Your task to perform on an android device: turn off sleep mode Image 0: 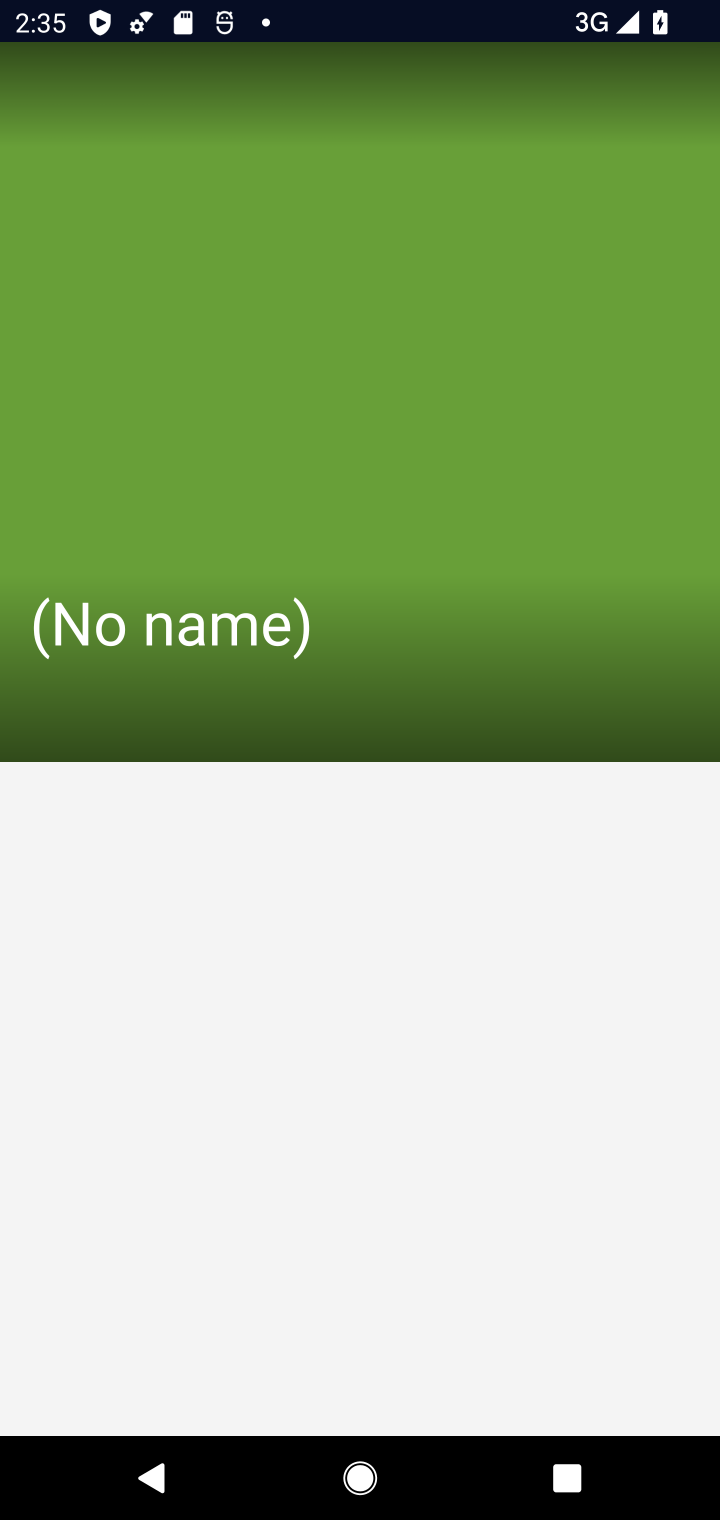
Step 0: press home button
Your task to perform on an android device: turn off sleep mode Image 1: 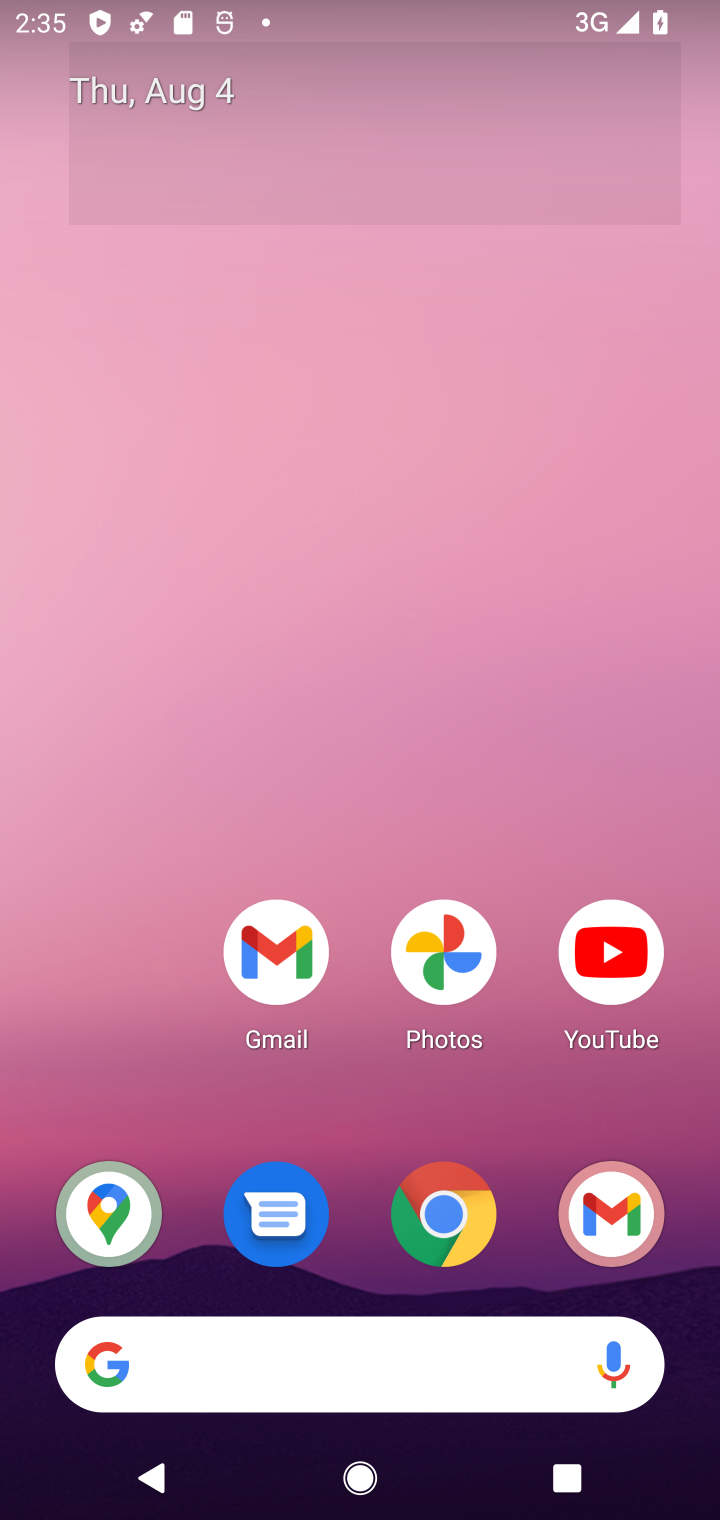
Step 1: drag from (108, 652) to (89, 3)
Your task to perform on an android device: turn off sleep mode Image 2: 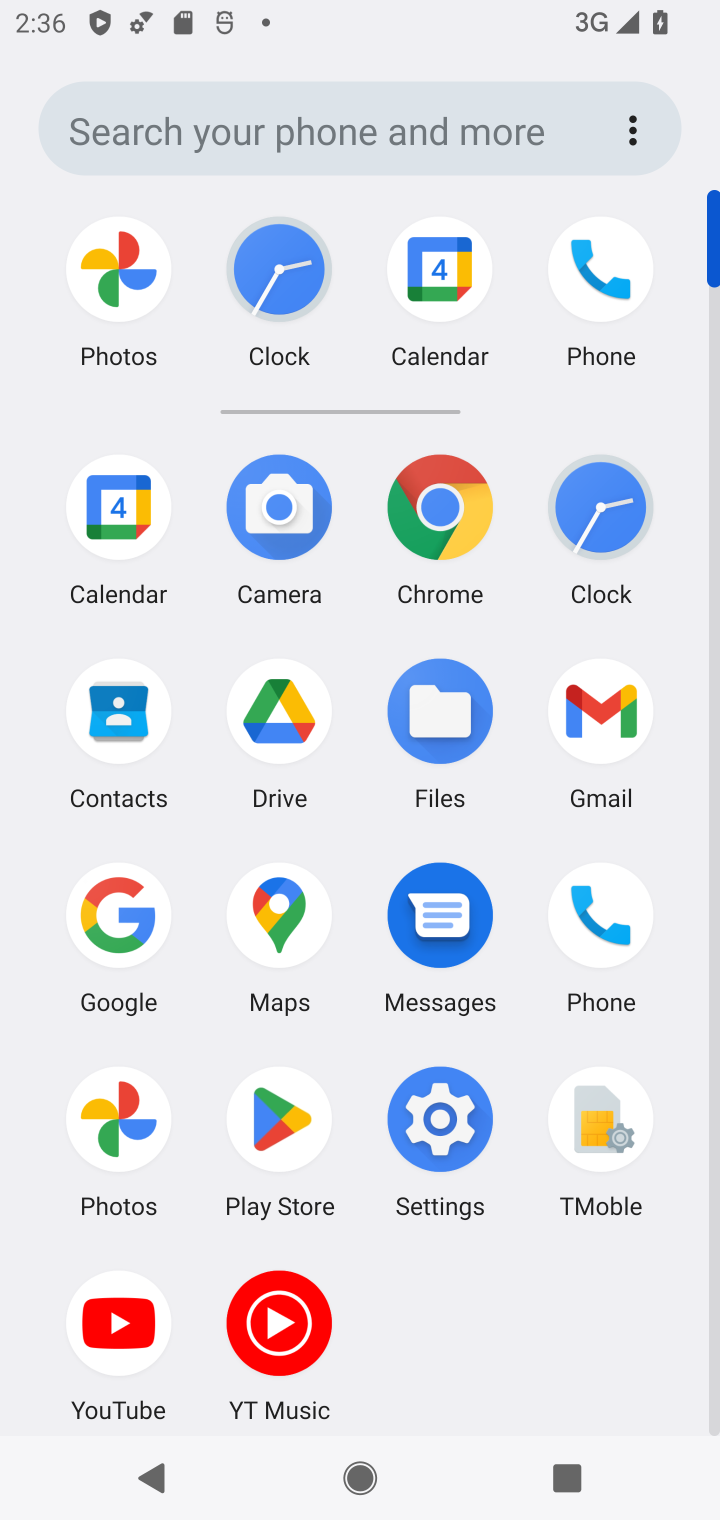
Step 2: click (420, 1123)
Your task to perform on an android device: turn off sleep mode Image 3: 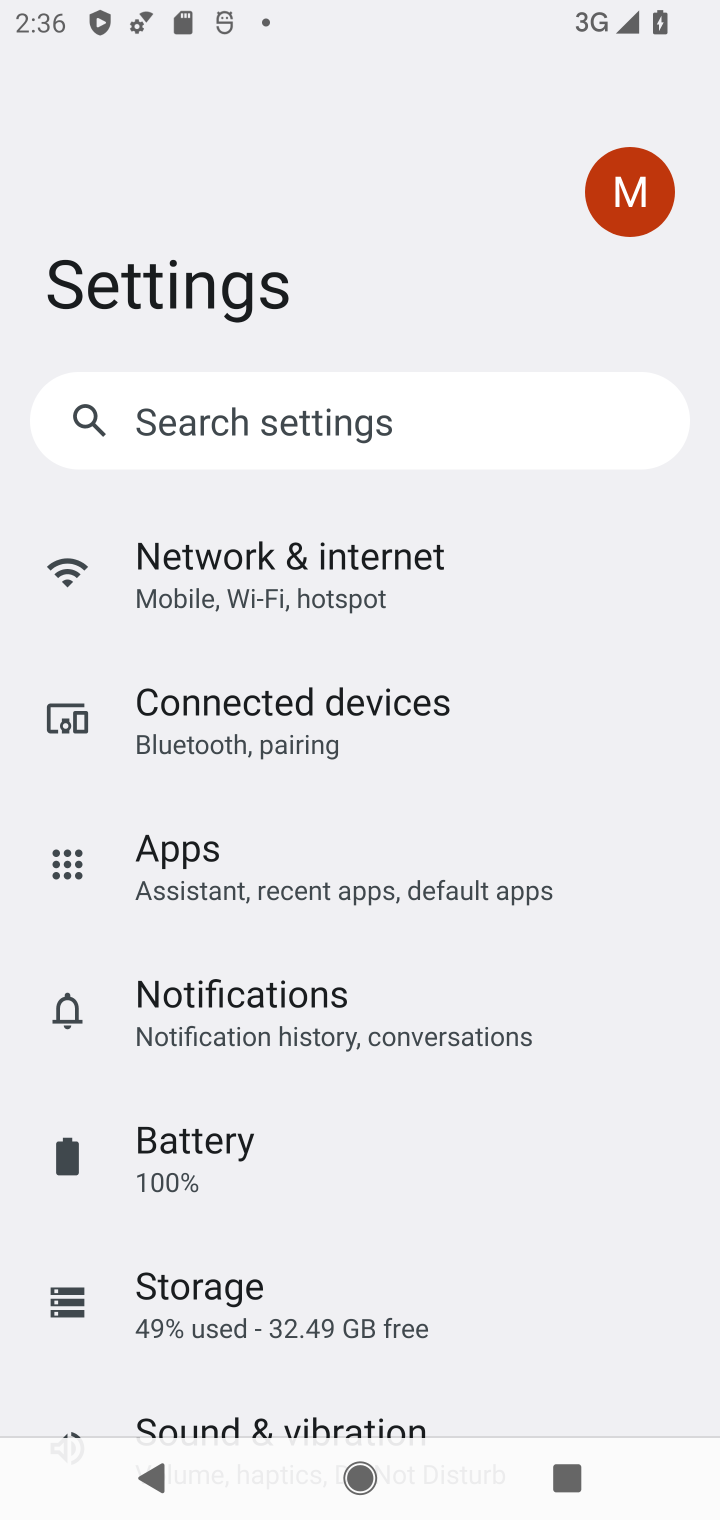
Step 3: task complete